Your task to perform on an android device: find photos in the google photos app Image 0: 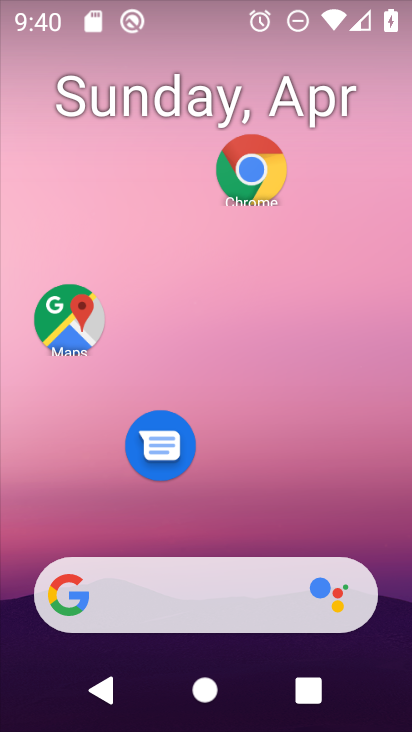
Step 0: drag from (257, 447) to (260, 64)
Your task to perform on an android device: find photos in the google photos app Image 1: 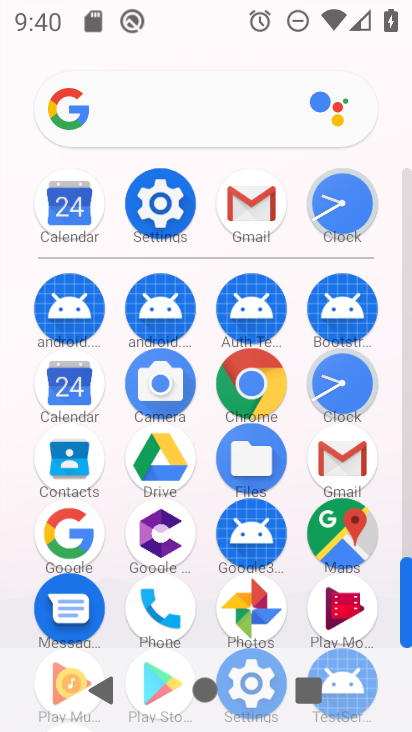
Step 1: click (257, 605)
Your task to perform on an android device: find photos in the google photos app Image 2: 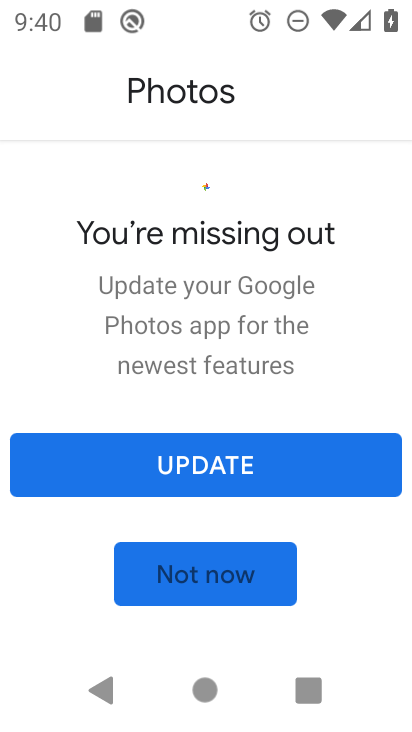
Step 2: click (225, 576)
Your task to perform on an android device: find photos in the google photos app Image 3: 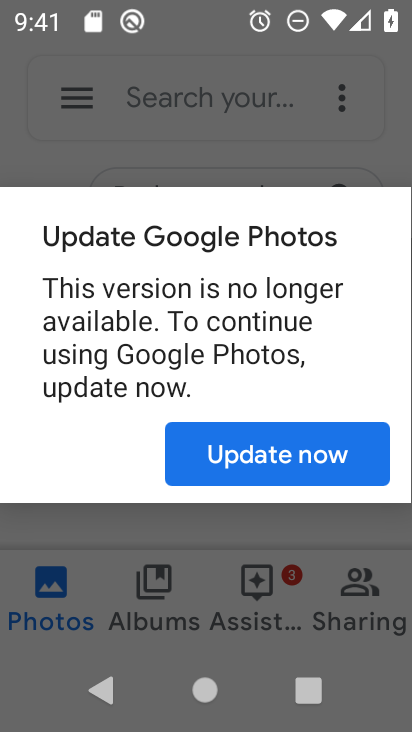
Step 3: click (259, 455)
Your task to perform on an android device: find photos in the google photos app Image 4: 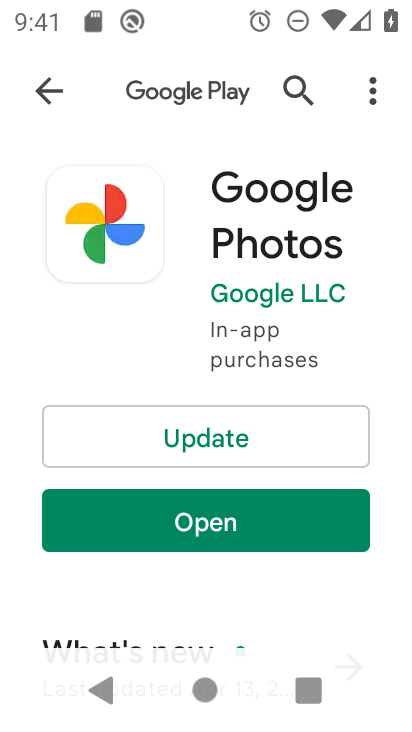
Step 4: click (218, 521)
Your task to perform on an android device: find photos in the google photos app Image 5: 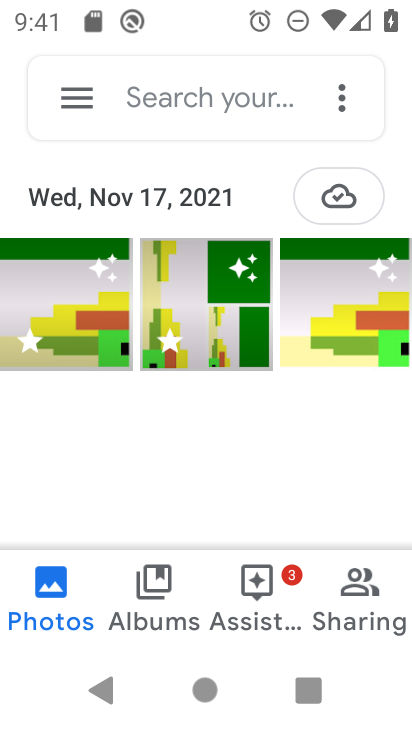
Step 5: task complete